Your task to perform on an android device: Do I have any events tomorrow? Image 0: 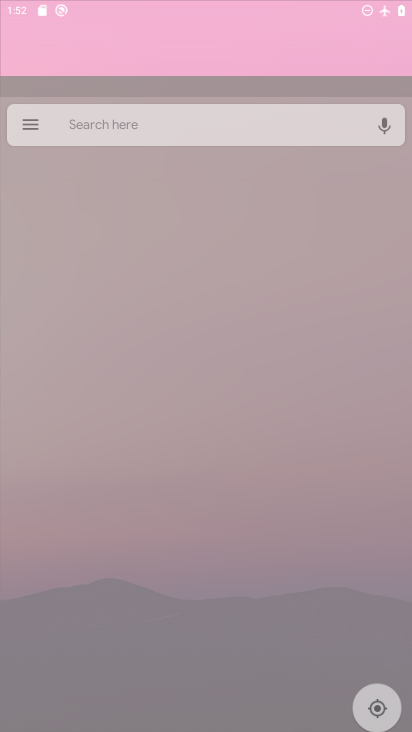
Step 0: click (254, 79)
Your task to perform on an android device: Do I have any events tomorrow? Image 1: 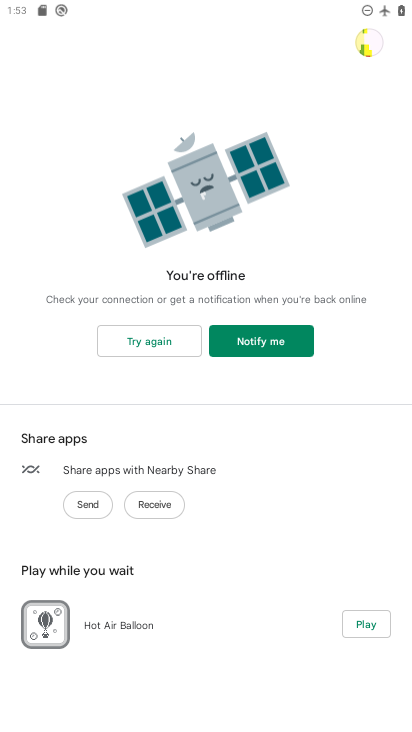
Step 1: press home button
Your task to perform on an android device: Do I have any events tomorrow? Image 2: 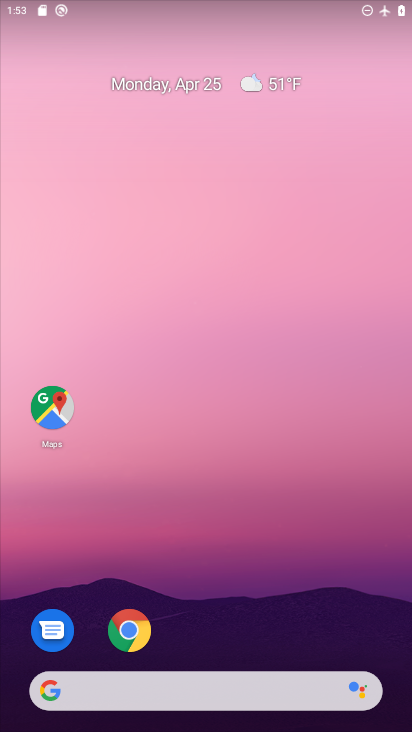
Step 2: drag from (286, 567) to (217, 14)
Your task to perform on an android device: Do I have any events tomorrow? Image 3: 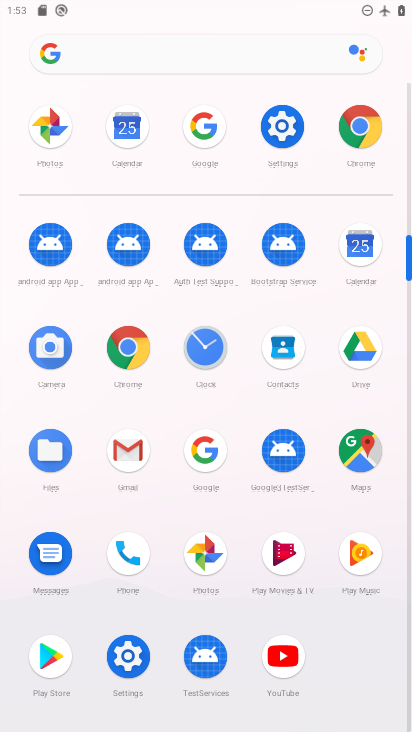
Step 3: click (373, 255)
Your task to perform on an android device: Do I have any events tomorrow? Image 4: 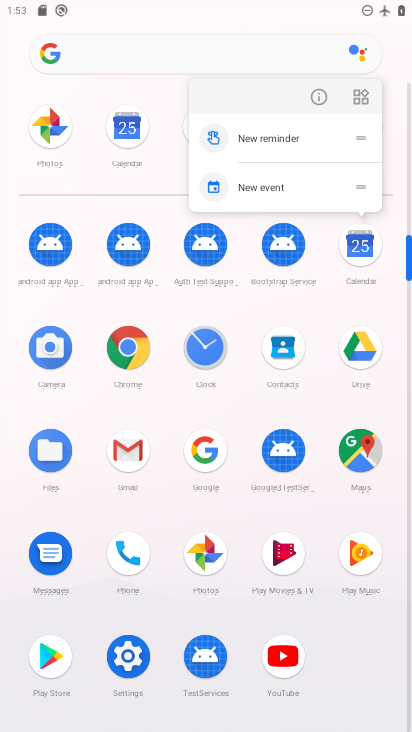
Step 4: click (372, 253)
Your task to perform on an android device: Do I have any events tomorrow? Image 5: 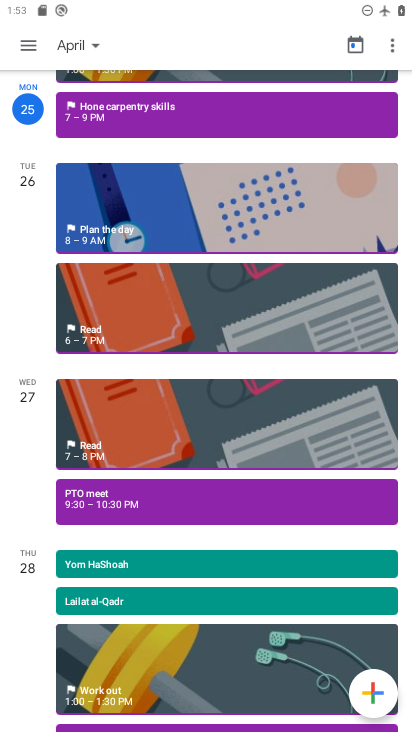
Step 5: click (77, 44)
Your task to perform on an android device: Do I have any events tomorrow? Image 6: 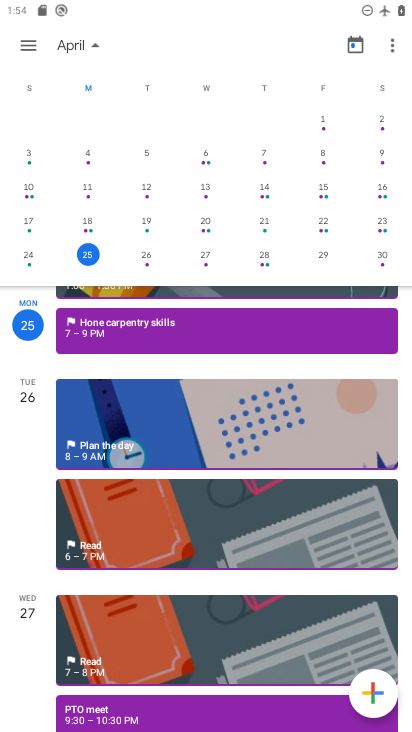
Step 6: click (133, 251)
Your task to perform on an android device: Do I have any events tomorrow? Image 7: 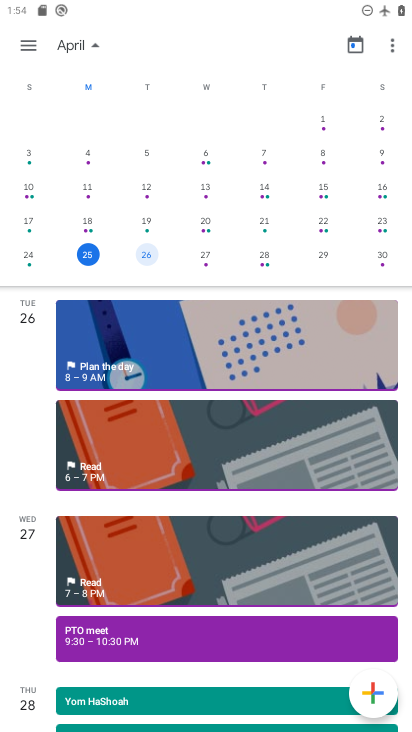
Step 7: task complete